Your task to perform on an android device: turn off data saver in the chrome app Image 0: 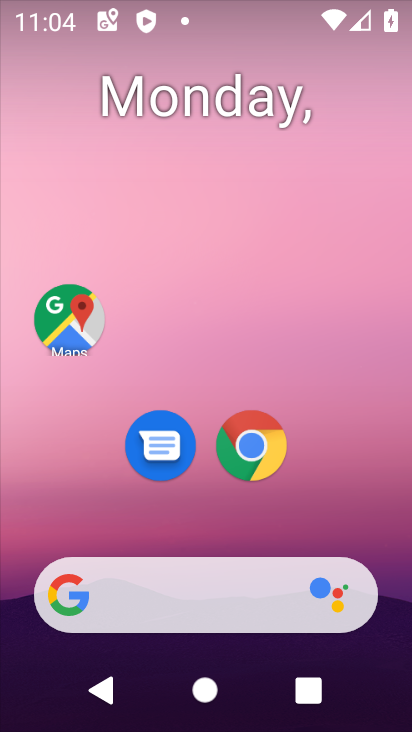
Step 0: click (247, 445)
Your task to perform on an android device: turn off data saver in the chrome app Image 1: 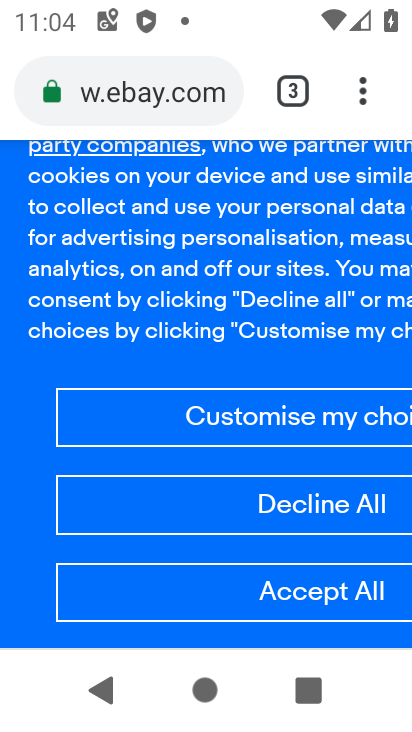
Step 1: drag from (362, 94) to (149, 472)
Your task to perform on an android device: turn off data saver in the chrome app Image 2: 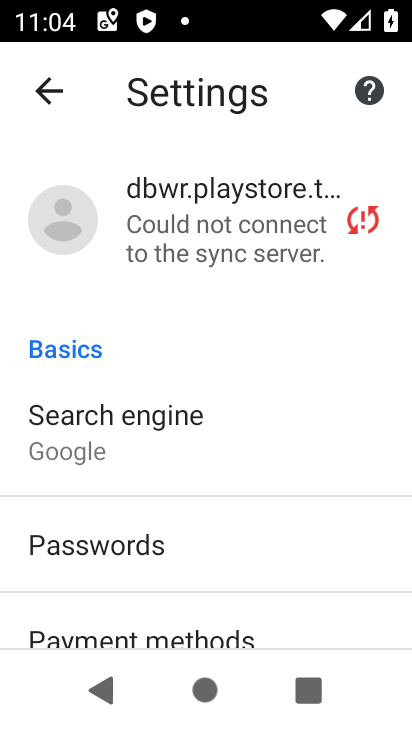
Step 2: drag from (158, 570) to (241, 255)
Your task to perform on an android device: turn off data saver in the chrome app Image 3: 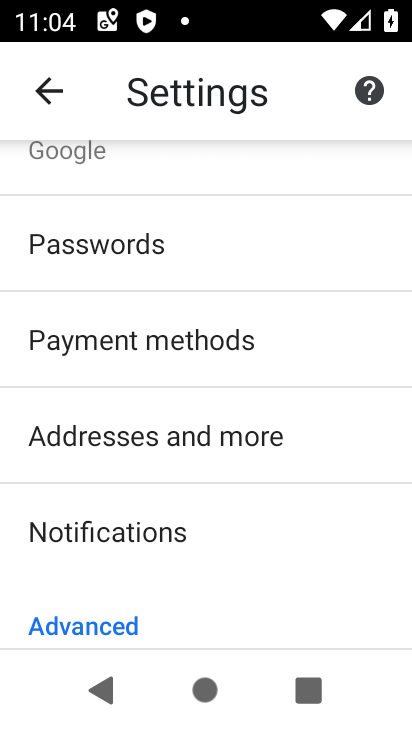
Step 3: drag from (186, 593) to (250, 213)
Your task to perform on an android device: turn off data saver in the chrome app Image 4: 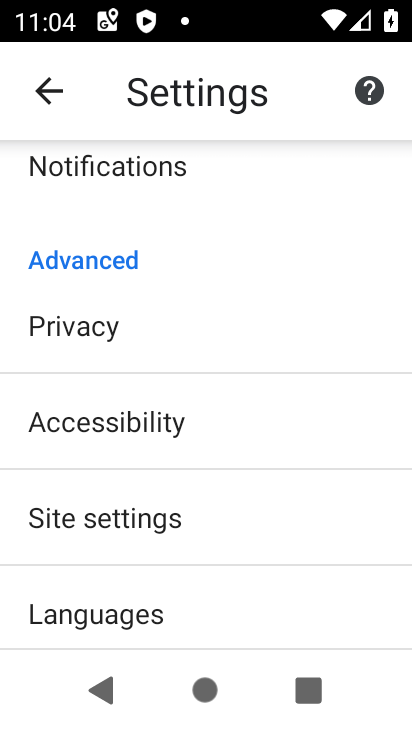
Step 4: drag from (169, 573) to (275, 177)
Your task to perform on an android device: turn off data saver in the chrome app Image 5: 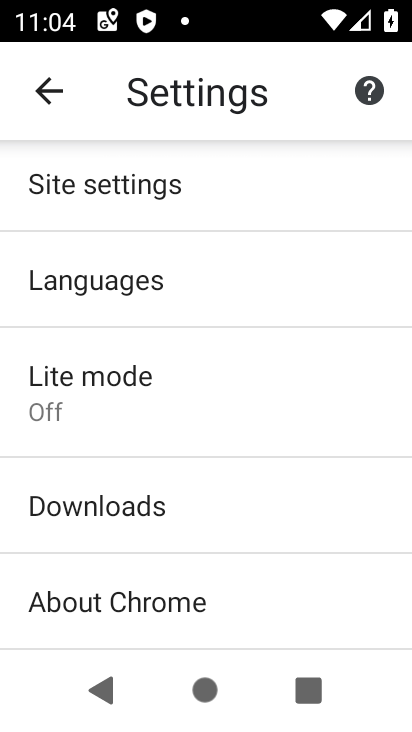
Step 5: click (153, 378)
Your task to perform on an android device: turn off data saver in the chrome app Image 6: 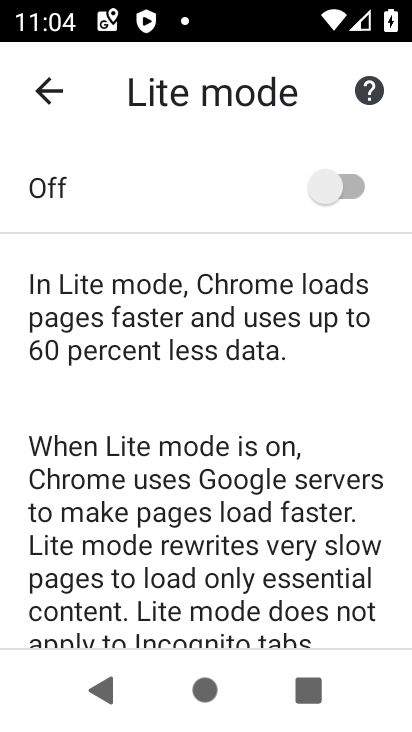
Step 6: task complete